Your task to perform on an android device: turn smart compose on in the gmail app Image 0: 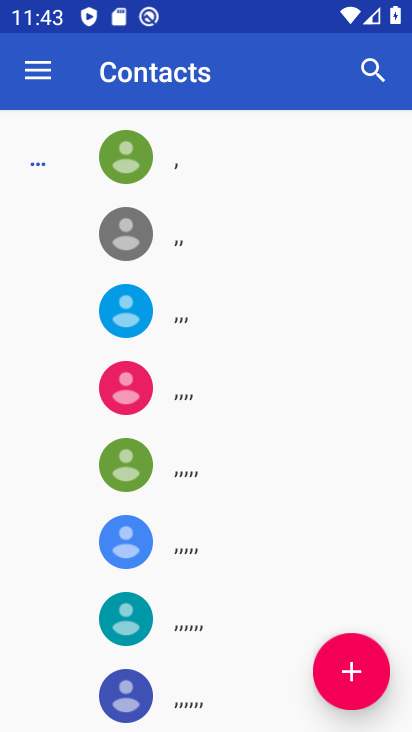
Step 0: task complete